Your task to perform on an android device: Go to settings Image 0: 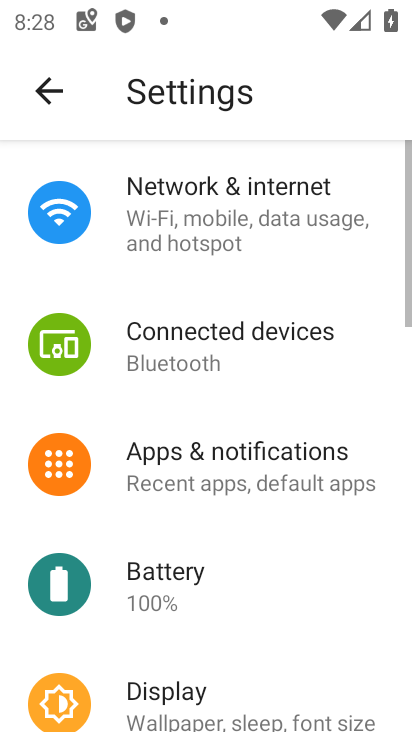
Step 0: task complete